Your task to perform on an android device: Go to privacy settings Image 0: 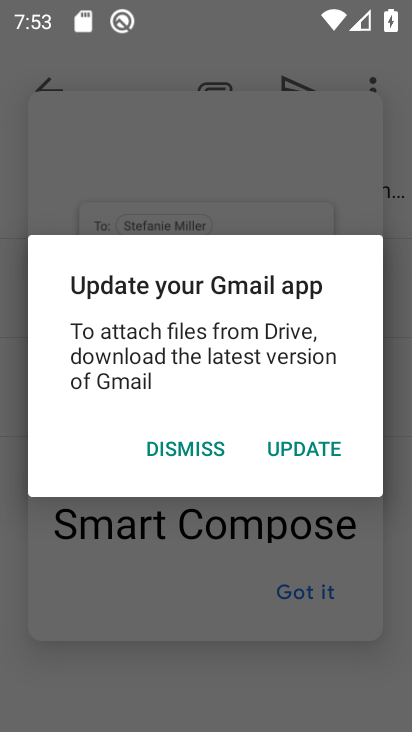
Step 0: click (189, 452)
Your task to perform on an android device: Go to privacy settings Image 1: 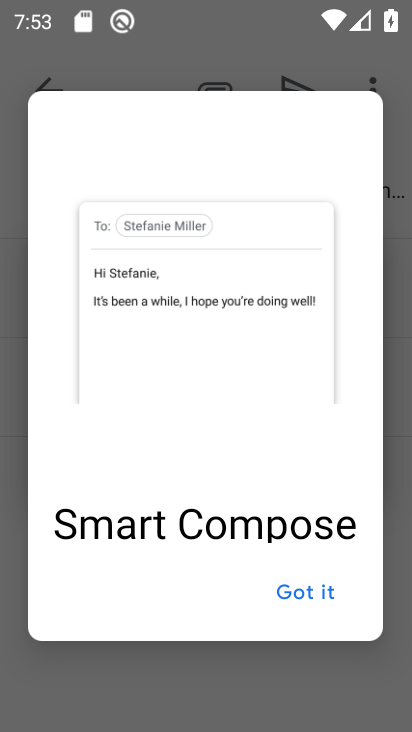
Step 1: press home button
Your task to perform on an android device: Go to privacy settings Image 2: 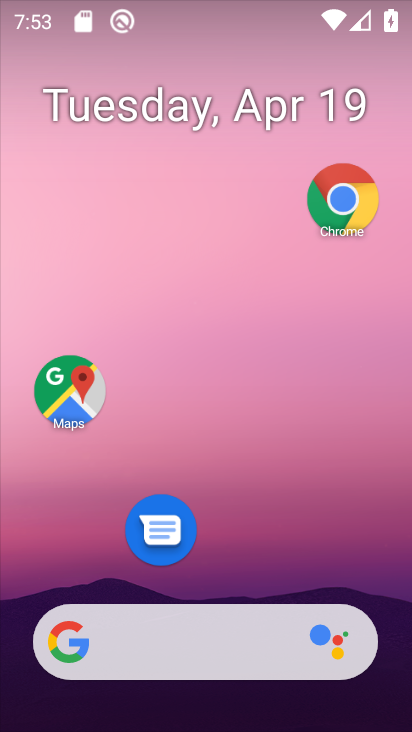
Step 2: drag from (224, 562) to (282, 153)
Your task to perform on an android device: Go to privacy settings Image 3: 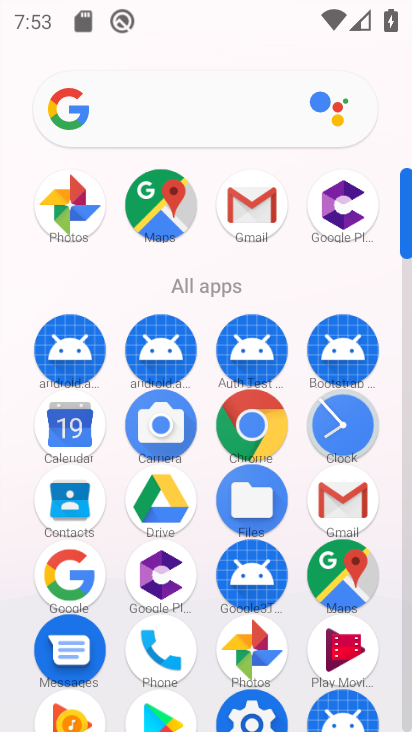
Step 3: click (270, 717)
Your task to perform on an android device: Go to privacy settings Image 4: 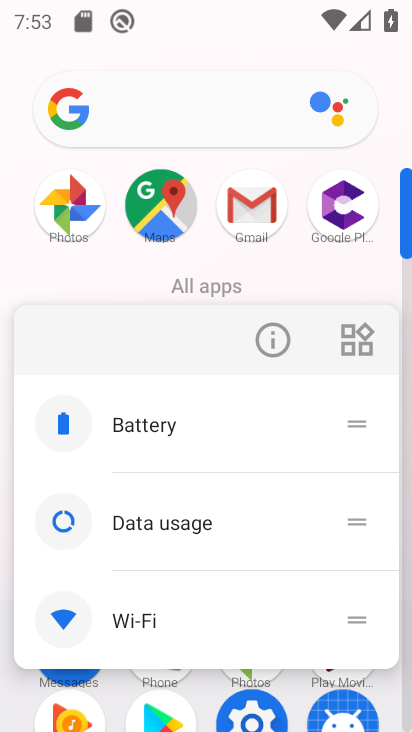
Step 4: click (270, 341)
Your task to perform on an android device: Go to privacy settings Image 5: 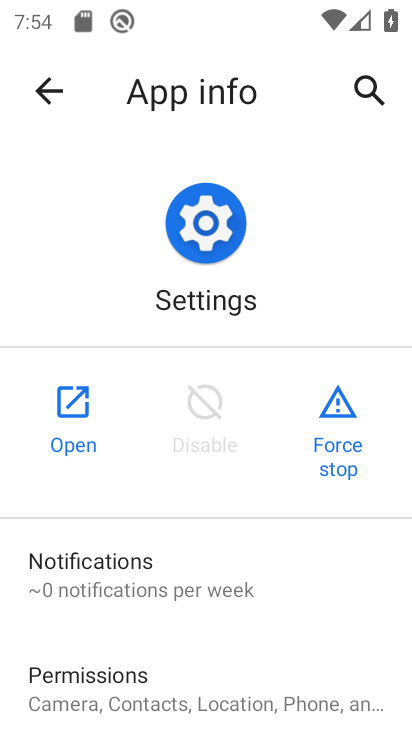
Step 5: click (103, 386)
Your task to perform on an android device: Go to privacy settings Image 6: 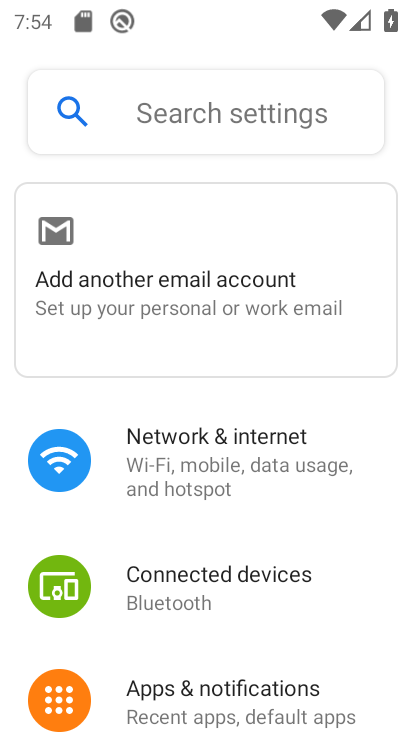
Step 6: drag from (238, 562) to (368, 106)
Your task to perform on an android device: Go to privacy settings Image 7: 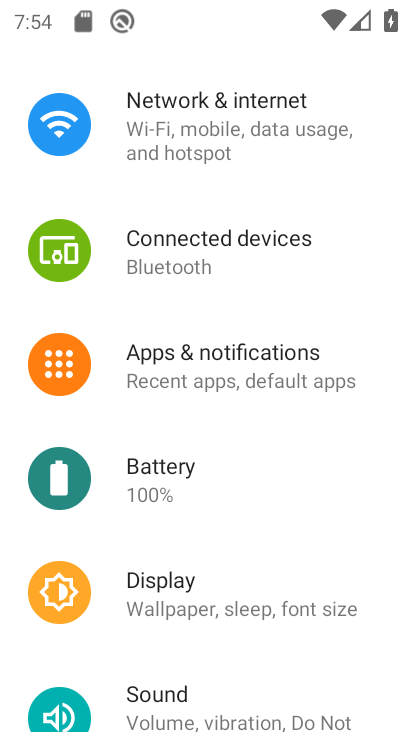
Step 7: drag from (231, 539) to (410, 43)
Your task to perform on an android device: Go to privacy settings Image 8: 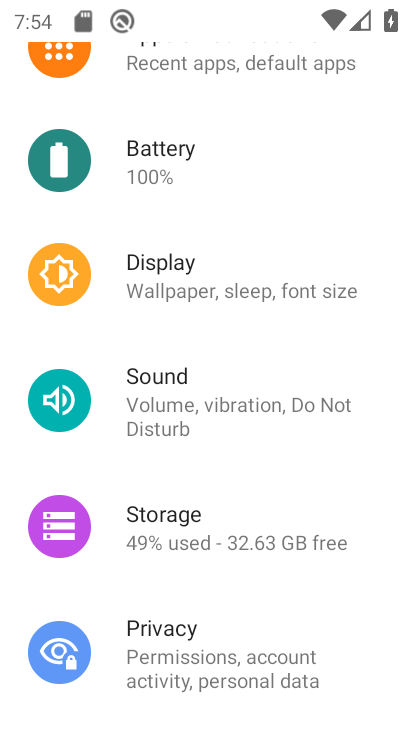
Step 8: click (191, 635)
Your task to perform on an android device: Go to privacy settings Image 9: 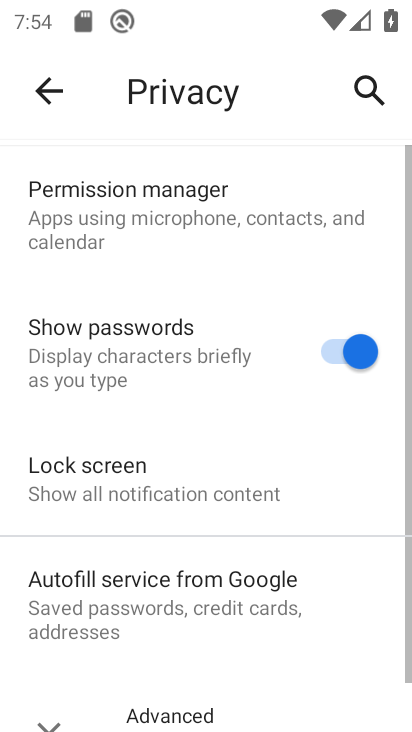
Step 9: task complete